Your task to perform on an android device: Open Chrome and go to settings Image 0: 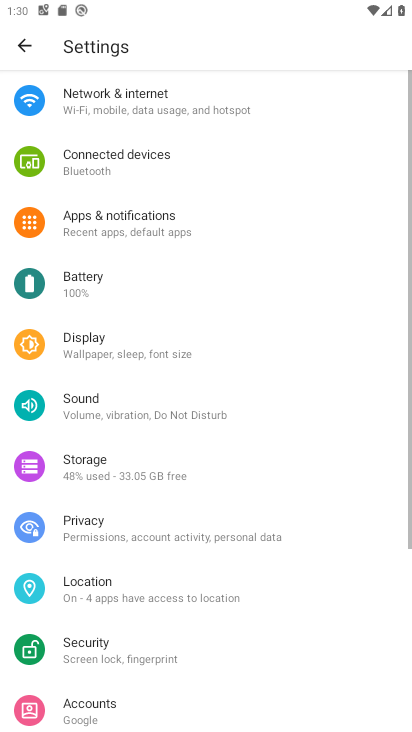
Step 0: press home button
Your task to perform on an android device: Open Chrome and go to settings Image 1: 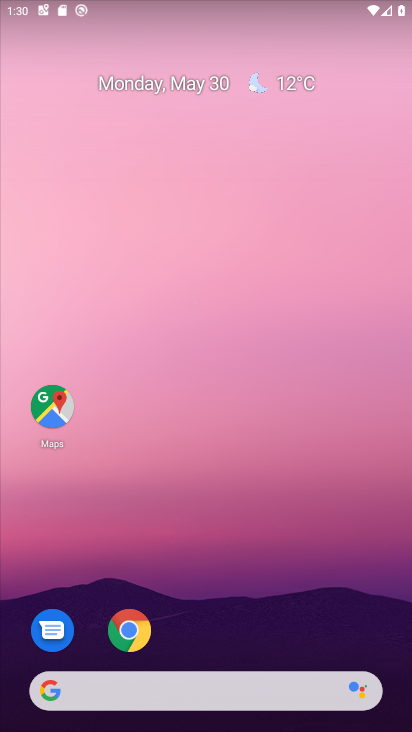
Step 1: click (139, 638)
Your task to perform on an android device: Open Chrome and go to settings Image 2: 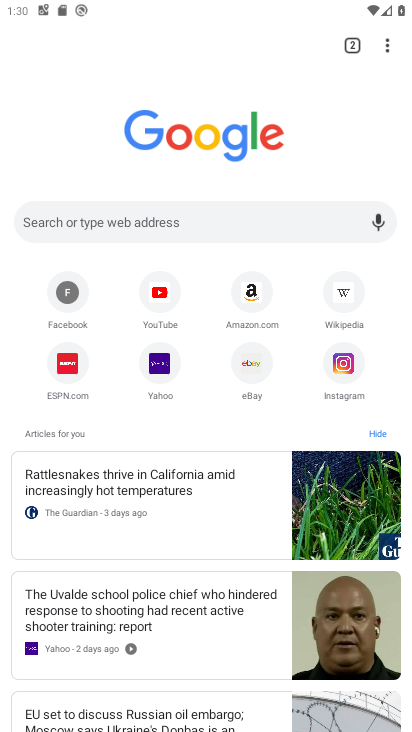
Step 2: task complete